Your task to perform on an android device: check out phone information Image 0: 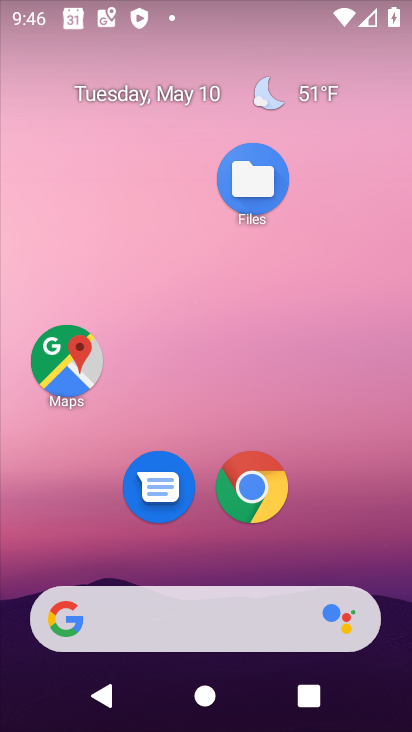
Step 0: drag from (194, 548) to (225, 81)
Your task to perform on an android device: check out phone information Image 1: 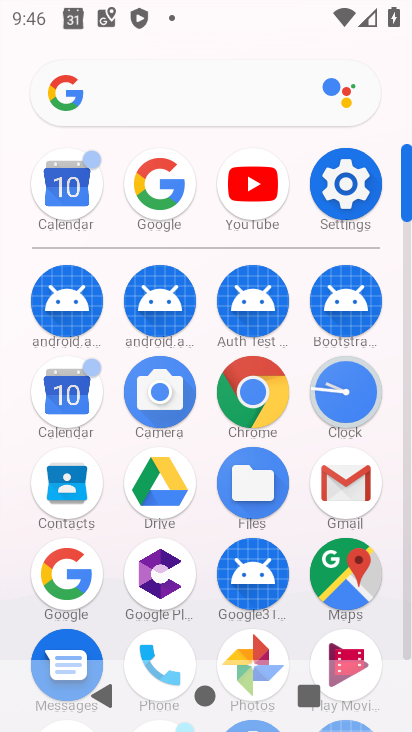
Step 1: click (344, 192)
Your task to perform on an android device: check out phone information Image 2: 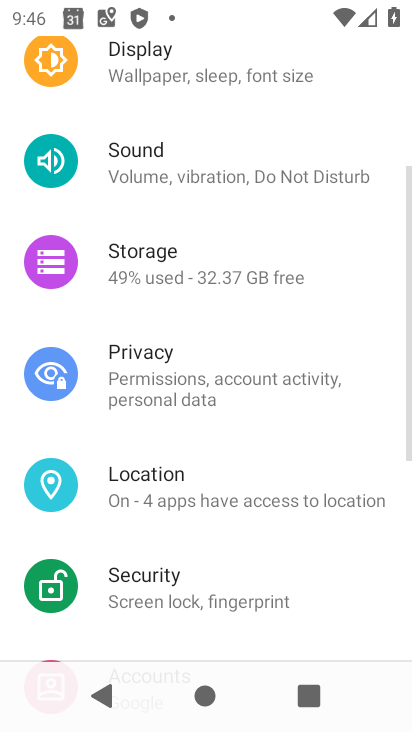
Step 2: drag from (217, 602) to (214, 70)
Your task to perform on an android device: check out phone information Image 3: 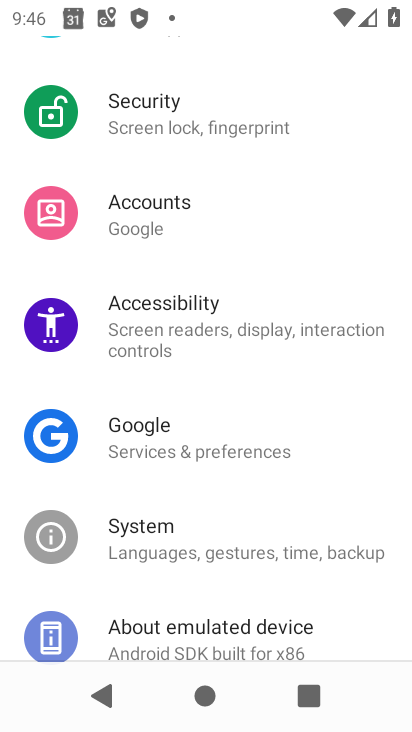
Step 3: drag from (184, 619) to (215, 46)
Your task to perform on an android device: check out phone information Image 4: 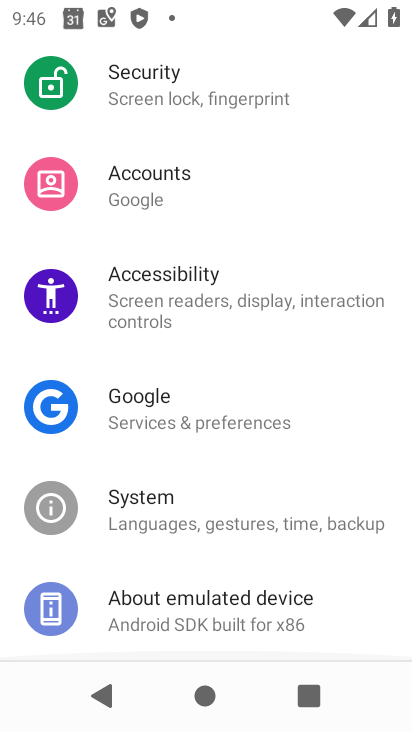
Step 4: click (146, 604)
Your task to perform on an android device: check out phone information Image 5: 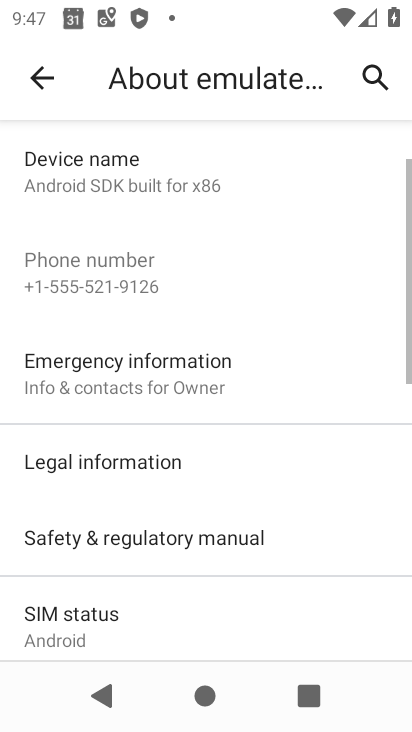
Step 5: task complete